Your task to perform on an android device: search for starred emails in the gmail app Image 0: 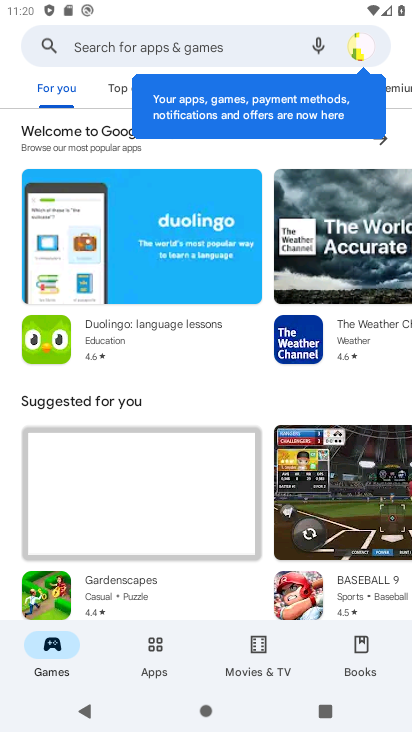
Step 0: press back button
Your task to perform on an android device: search for starred emails in the gmail app Image 1: 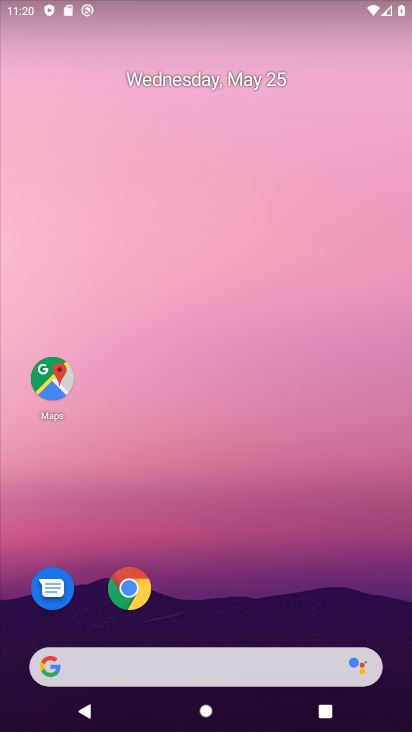
Step 1: drag from (255, 532) to (175, 28)
Your task to perform on an android device: search for starred emails in the gmail app Image 2: 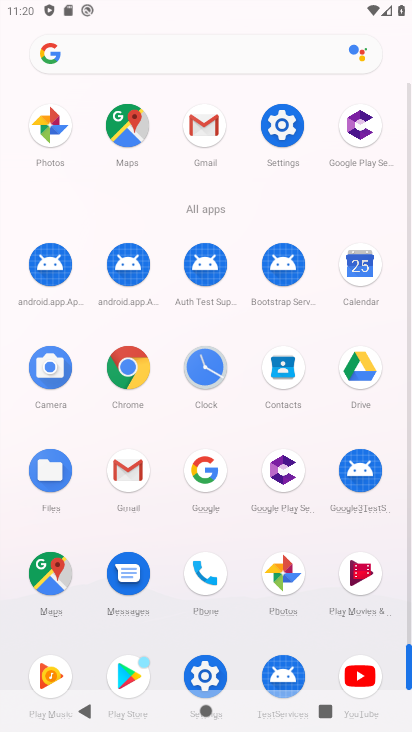
Step 2: drag from (11, 524) to (10, 221)
Your task to perform on an android device: search for starred emails in the gmail app Image 3: 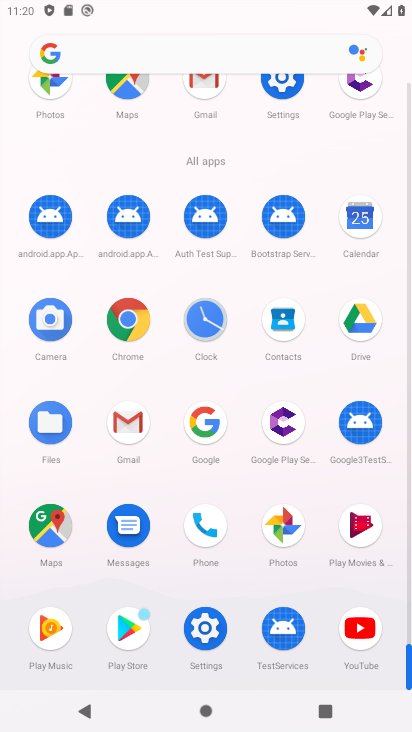
Step 3: click (128, 417)
Your task to perform on an android device: search for starred emails in the gmail app Image 4: 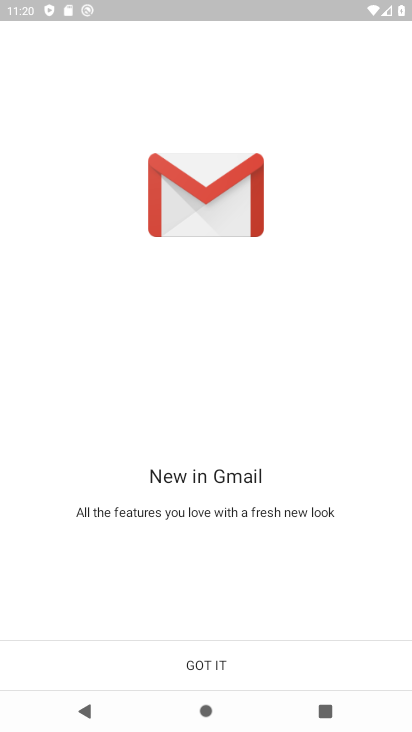
Step 4: click (188, 677)
Your task to perform on an android device: search for starred emails in the gmail app Image 5: 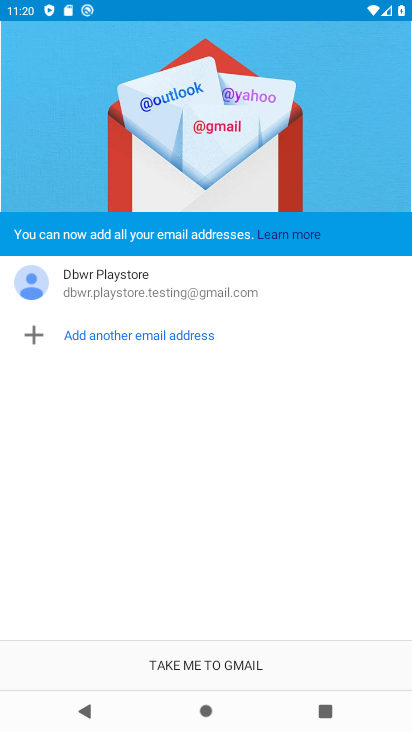
Step 5: click (226, 662)
Your task to perform on an android device: search for starred emails in the gmail app Image 6: 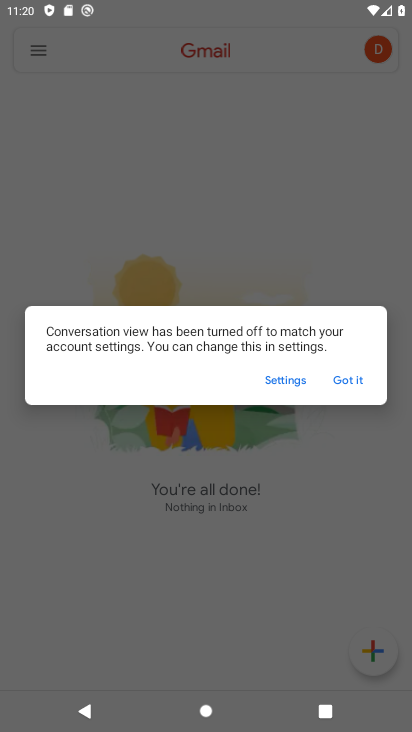
Step 6: click (354, 378)
Your task to perform on an android device: search for starred emails in the gmail app Image 7: 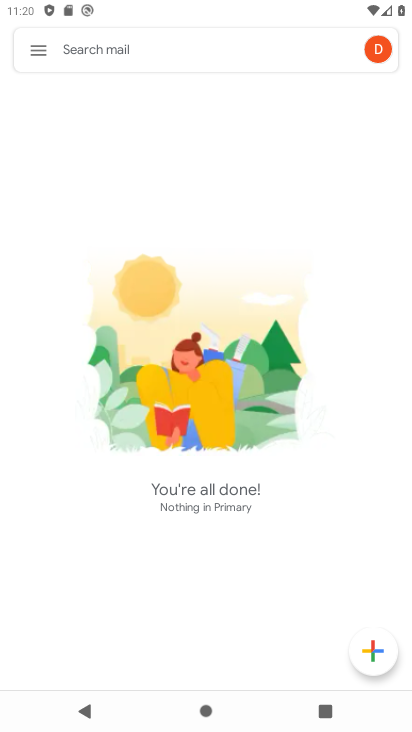
Step 7: click (46, 42)
Your task to perform on an android device: search for starred emails in the gmail app Image 8: 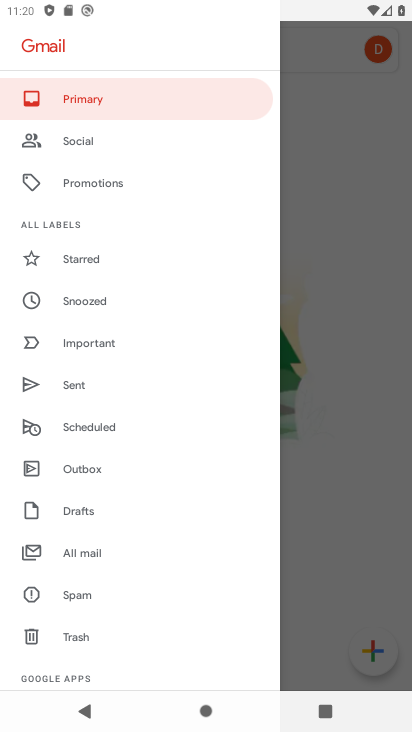
Step 8: click (92, 250)
Your task to perform on an android device: search for starred emails in the gmail app Image 9: 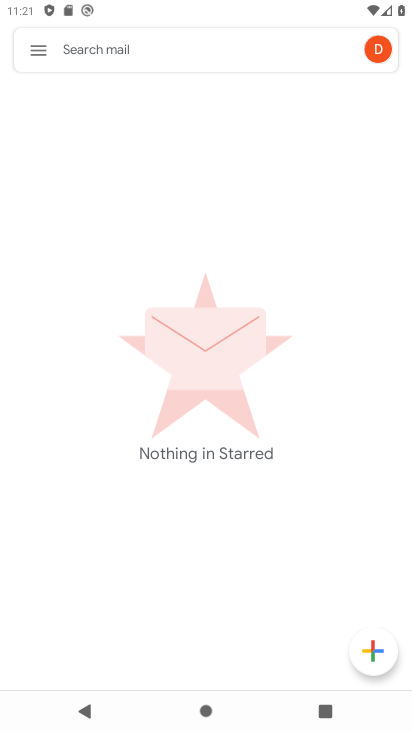
Step 9: task complete